Your task to perform on an android device: Open Google Image 0: 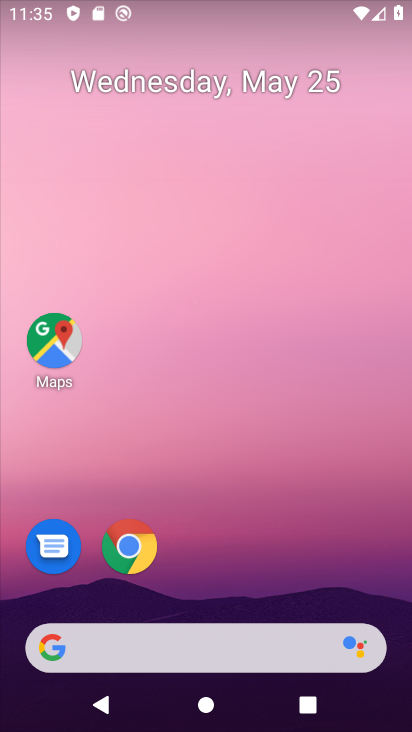
Step 0: drag from (209, 480) to (246, 97)
Your task to perform on an android device: Open Google Image 1: 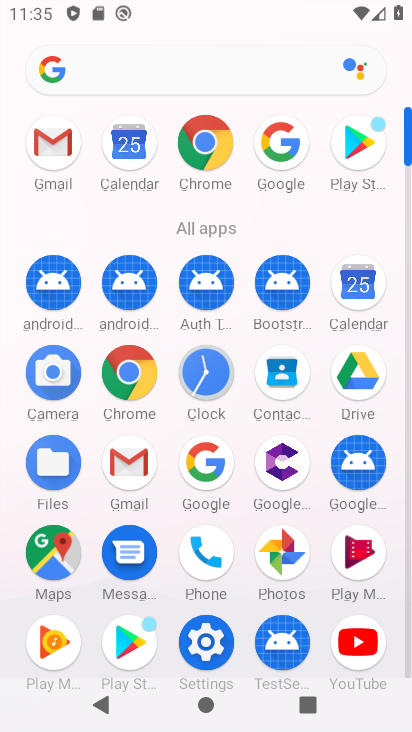
Step 1: click (200, 469)
Your task to perform on an android device: Open Google Image 2: 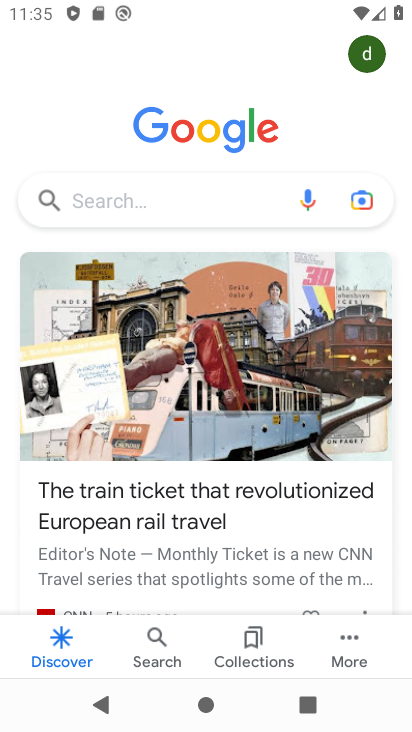
Step 2: task complete